Your task to perform on an android device: Go to Reddit.com Image 0: 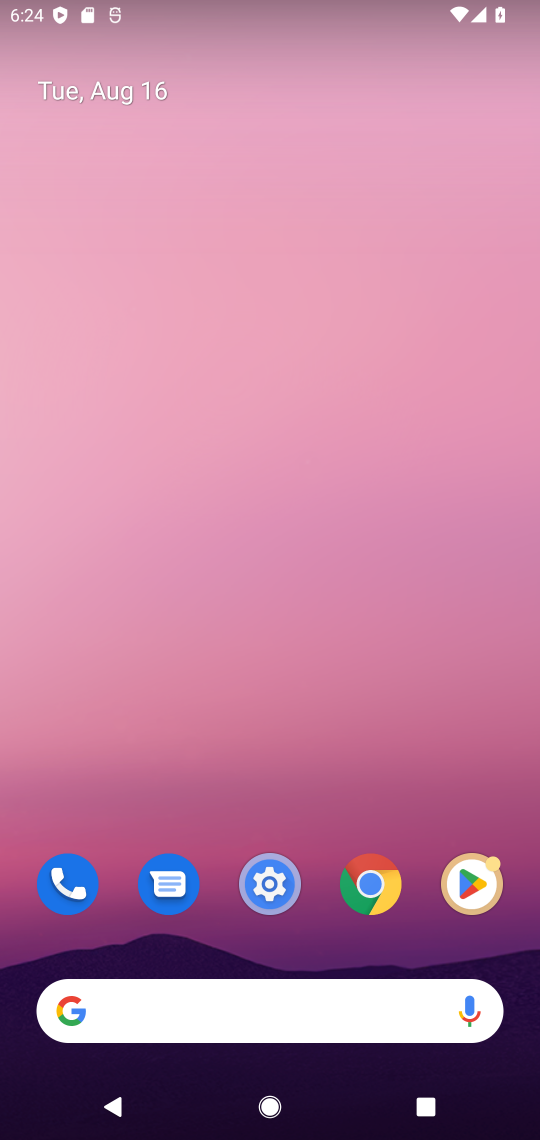
Step 0: press home button
Your task to perform on an android device: Go to Reddit.com Image 1: 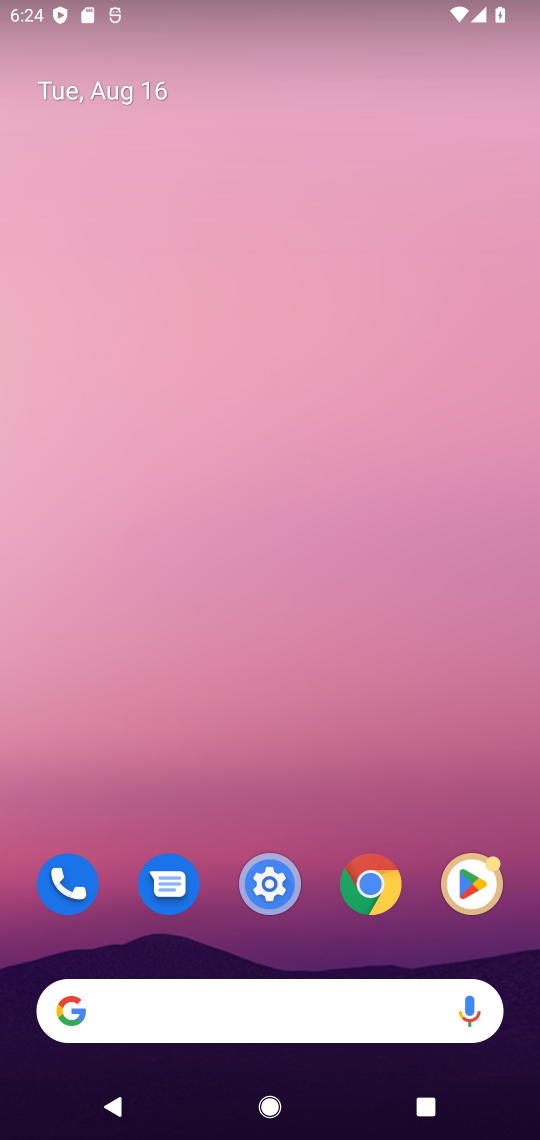
Step 1: click (59, 1019)
Your task to perform on an android device: Go to Reddit.com Image 2: 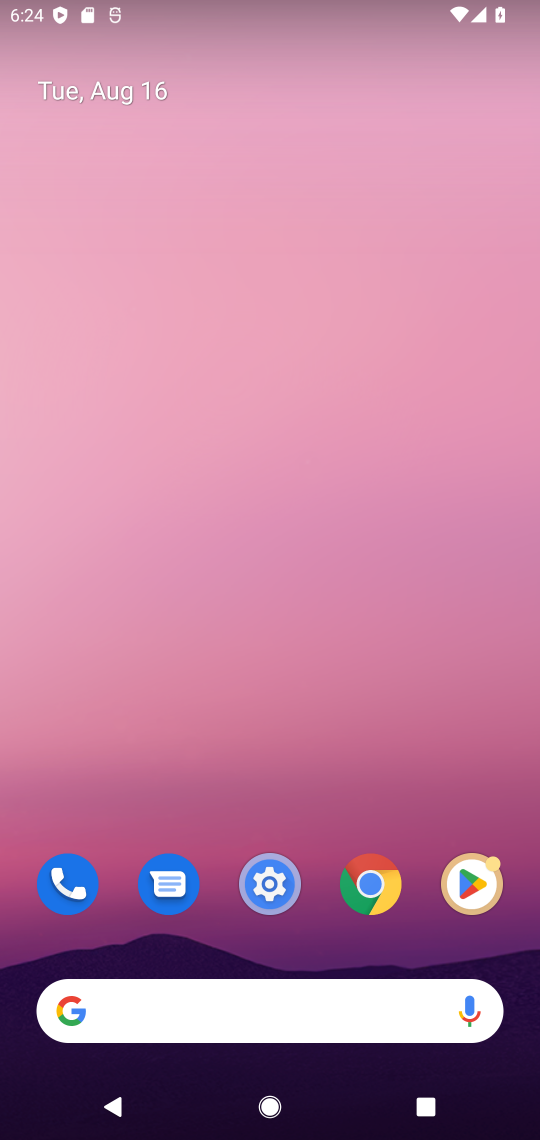
Step 2: click (66, 1013)
Your task to perform on an android device: Go to Reddit.com Image 3: 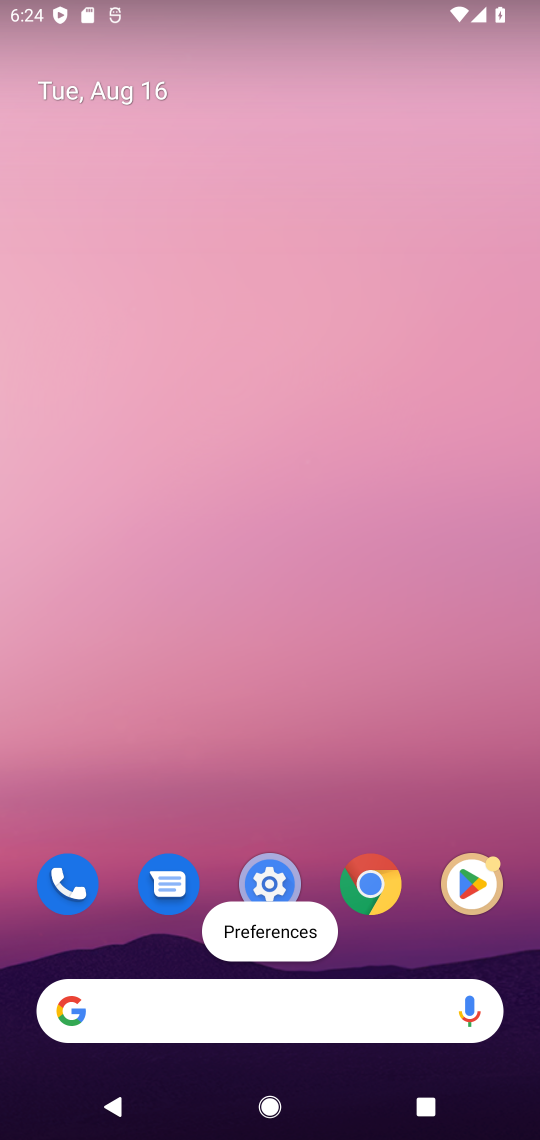
Step 3: click (61, 1012)
Your task to perform on an android device: Go to Reddit.com Image 4: 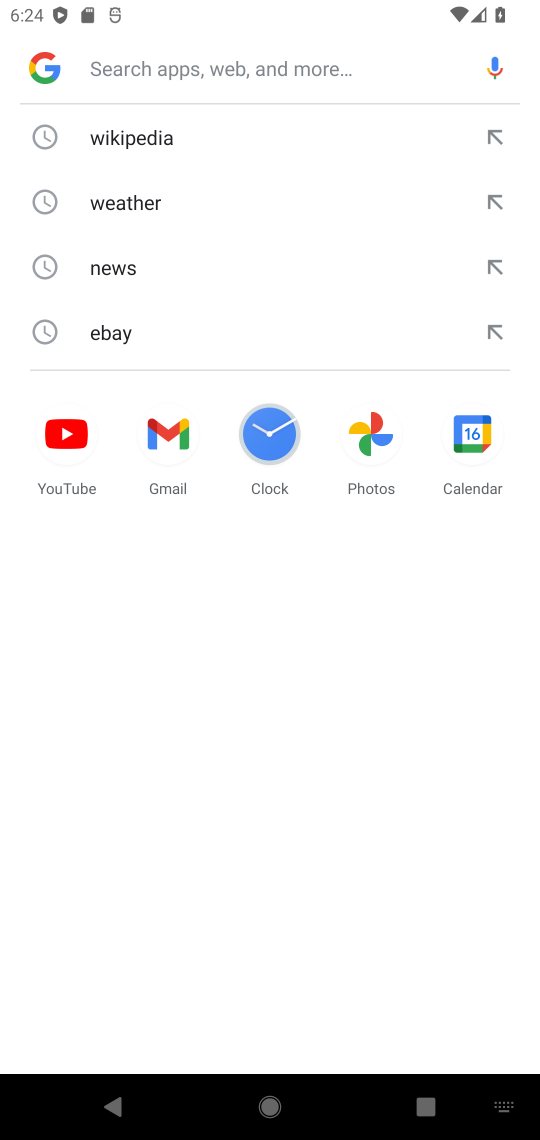
Step 4: type " Reddit.com"
Your task to perform on an android device: Go to Reddit.com Image 5: 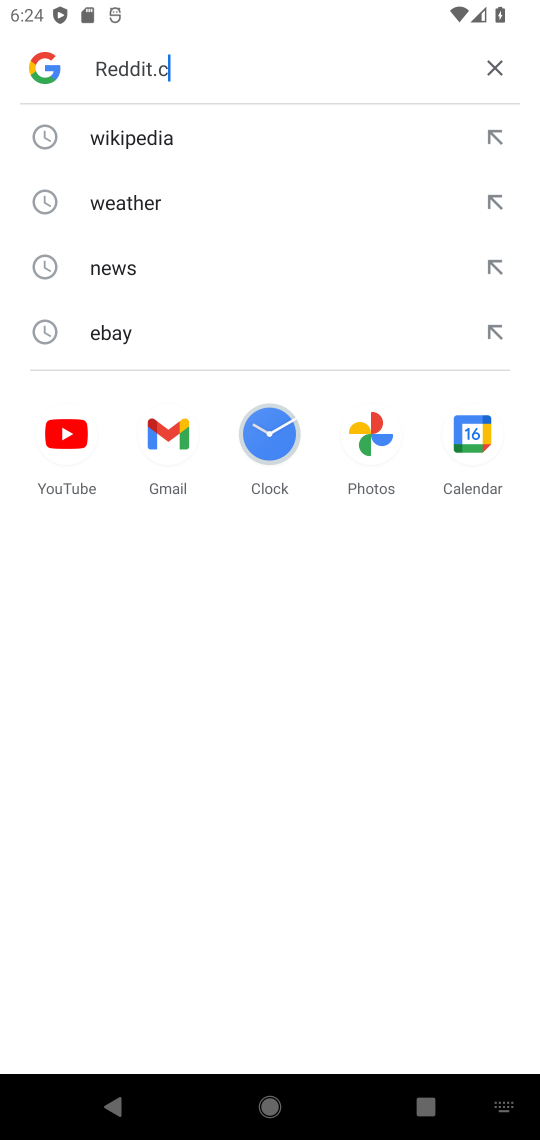
Step 5: press enter
Your task to perform on an android device: Go to Reddit.com Image 6: 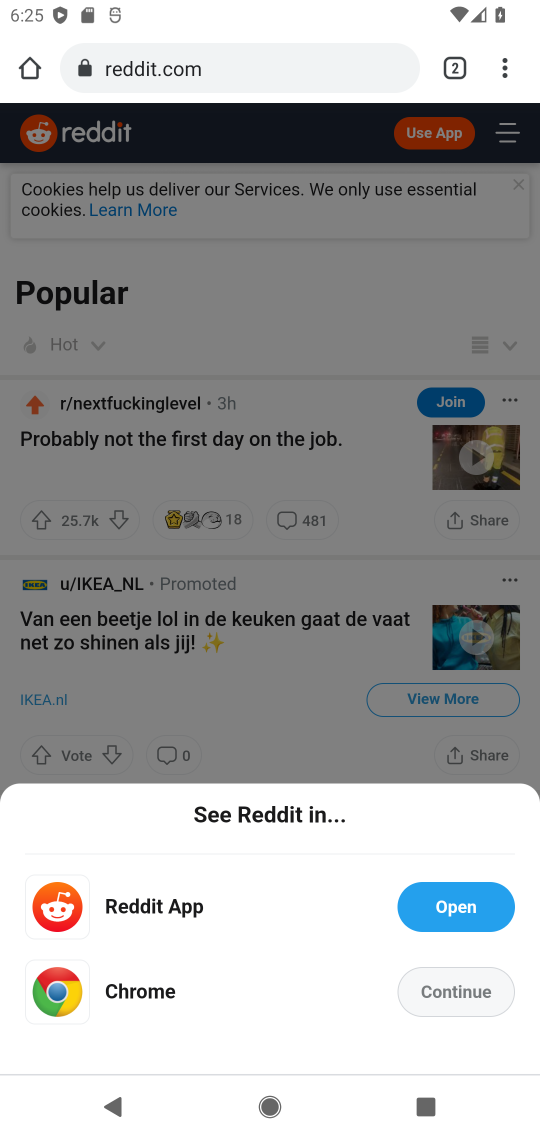
Step 6: task complete